Your task to perform on an android device: Go to sound settings Image 0: 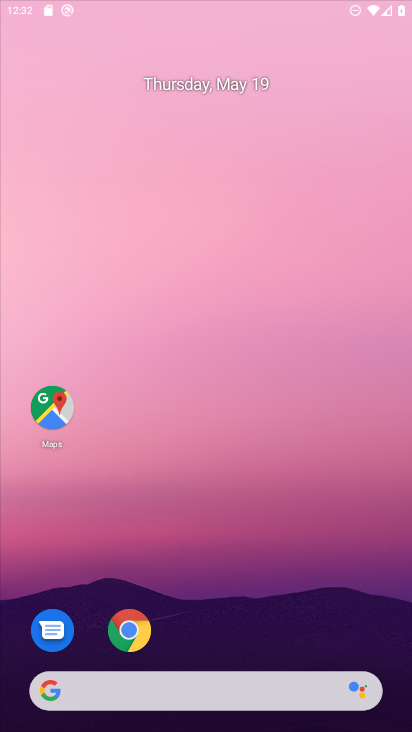
Step 0: click (350, 101)
Your task to perform on an android device: Go to sound settings Image 1: 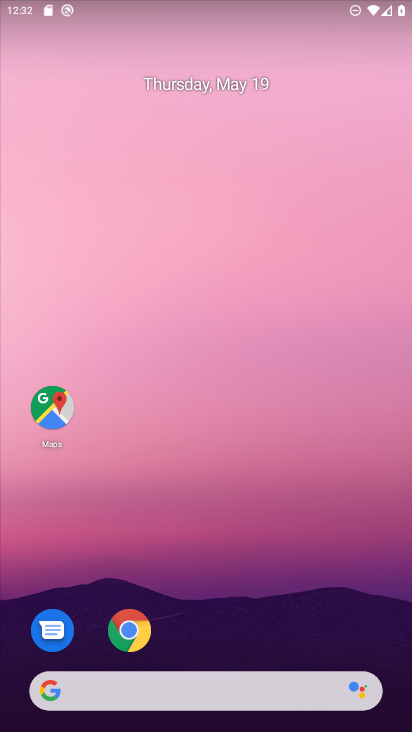
Step 1: drag from (232, 594) to (278, 267)
Your task to perform on an android device: Go to sound settings Image 2: 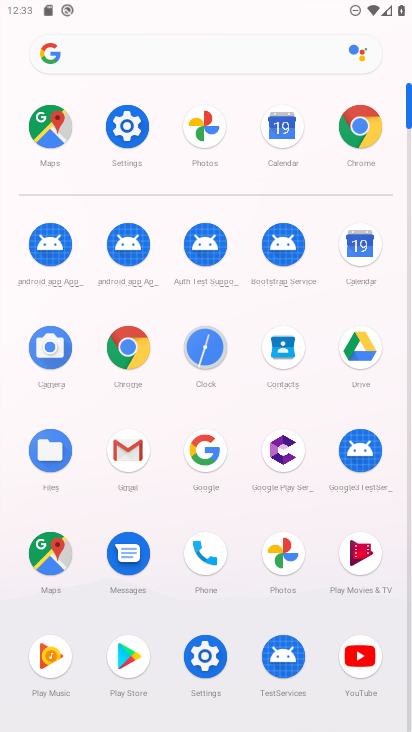
Step 2: click (214, 661)
Your task to perform on an android device: Go to sound settings Image 3: 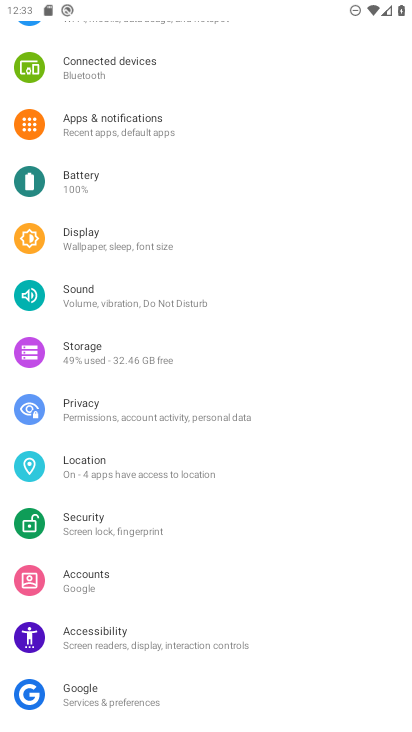
Step 3: click (150, 302)
Your task to perform on an android device: Go to sound settings Image 4: 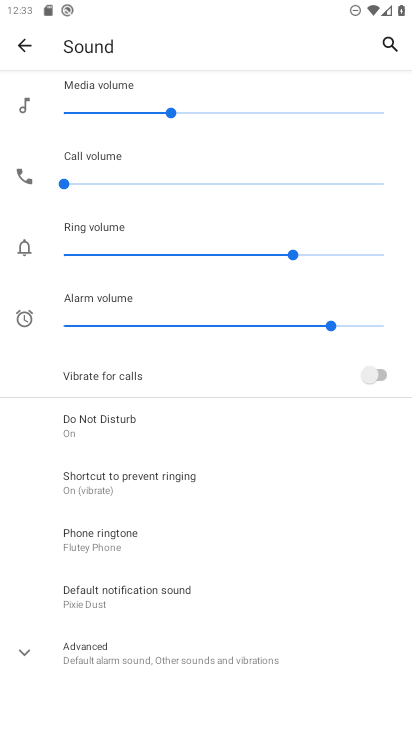
Step 4: task complete